Your task to perform on an android device: Open eBay Image 0: 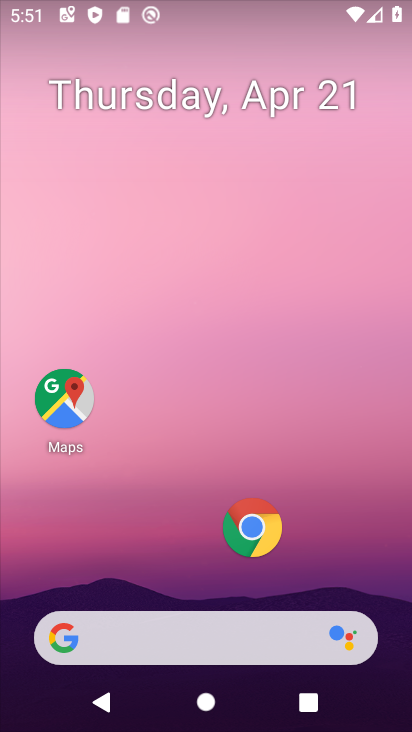
Step 0: drag from (151, 519) to (294, 92)
Your task to perform on an android device: Open eBay Image 1: 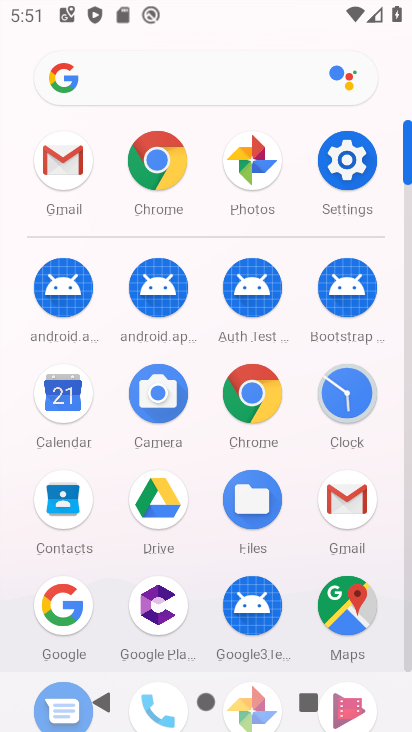
Step 1: click (165, 168)
Your task to perform on an android device: Open eBay Image 2: 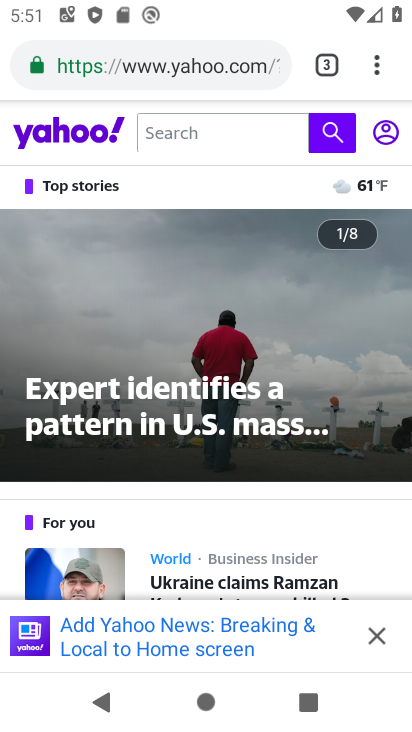
Step 2: click (328, 63)
Your task to perform on an android device: Open eBay Image 3: 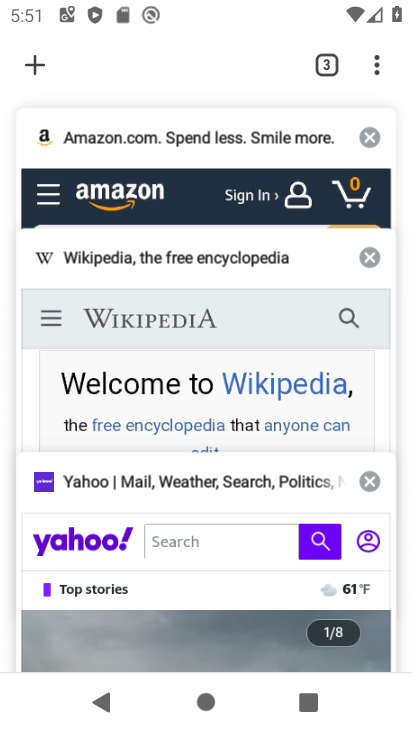
Step 3: click (30, 68)
Your task to perform on an android device: Open eBay Image 4: 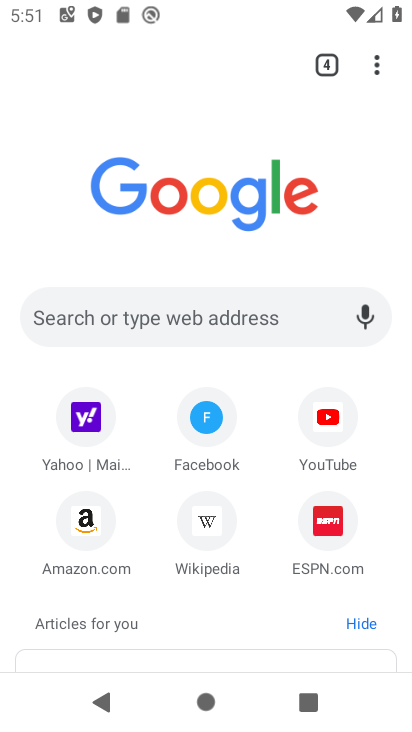
Step 4: click (141, 317)
Your task to perform on an android device: Open eBay Image 5: 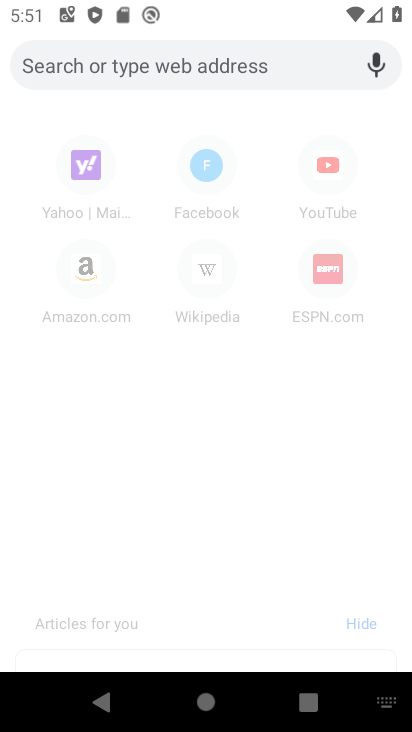
Step 5: type "ebay"
Your task to perform on an android device: Open eBay Image 6: 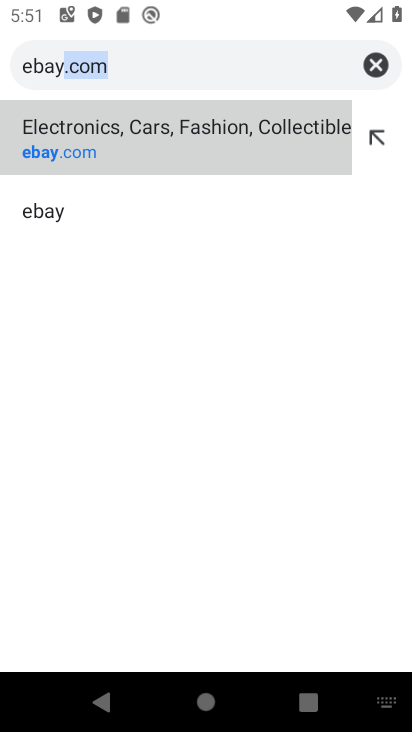
Step 6: click (95, 130)
Your task to perform on an android device: Open eBay Image 7: 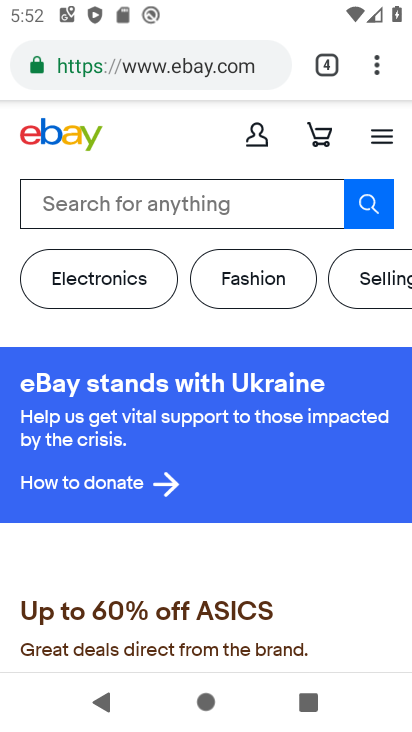
Step 7: task complete